Your task to perform on an android device: set default search engine in the chrome app Image 0: 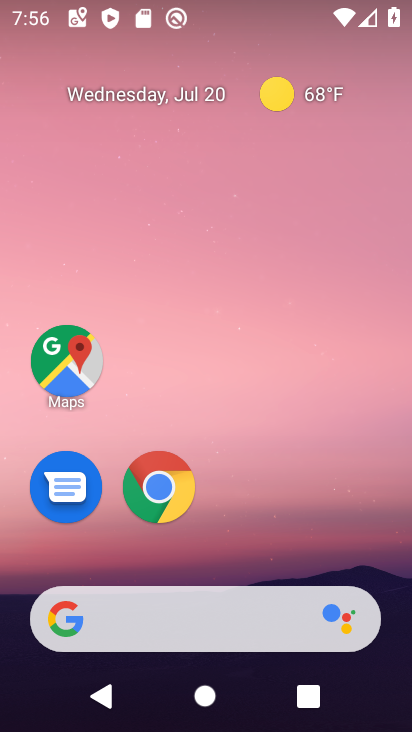
Step 0: drag from (374, 547) to (369, 83)
Your task to perform on an android device: set default search engine in the chrome app Image 1: 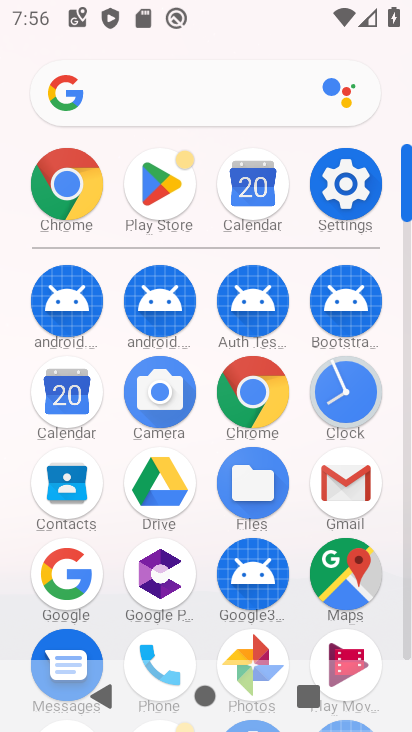
Step 1: click (260, 397)
Your task to perform on an android device: set default search engine in the chrome app Image 2: 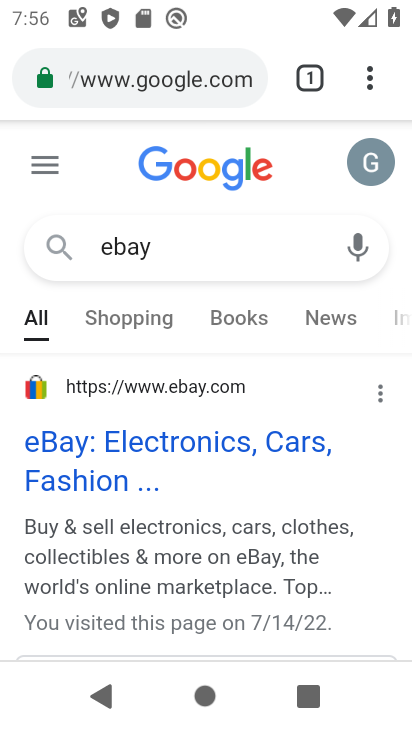
Step 2: click (370, 84)
Your task to perform on an android device: set default search engine in the chrome app Image 3: 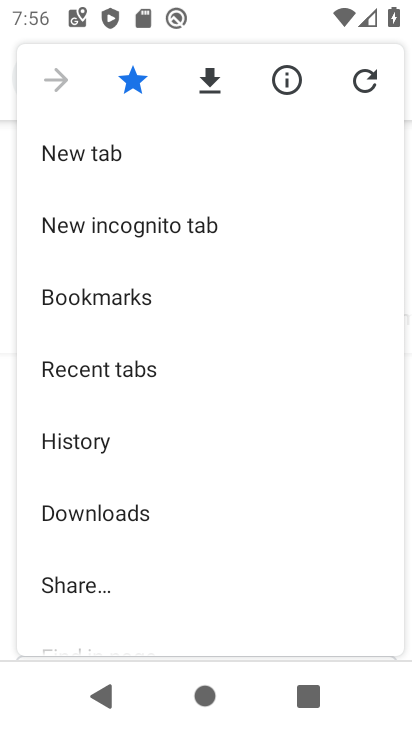
Step 3: drag from (304, 391) to (322, 319)
Your task to perform on an android device: set default search engine in the chrome app Image 4: 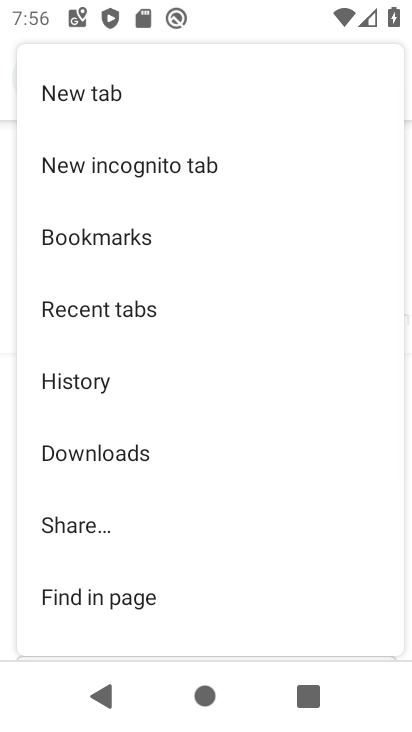
Step 4: drag from (316, 396) to (313, 328)
Your task to perform on an android device: set default search engine in the chrome app Image 5: 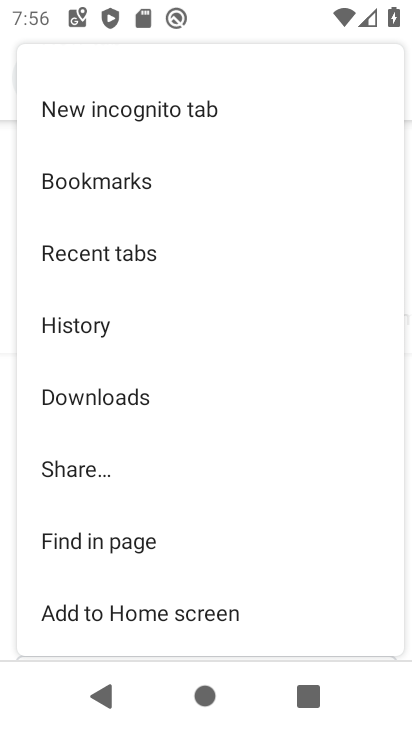
Step 5: drag from (330, 409) to (310, 332)
Your task to perform on an android device: set default search engine in the chrome app Image 6: 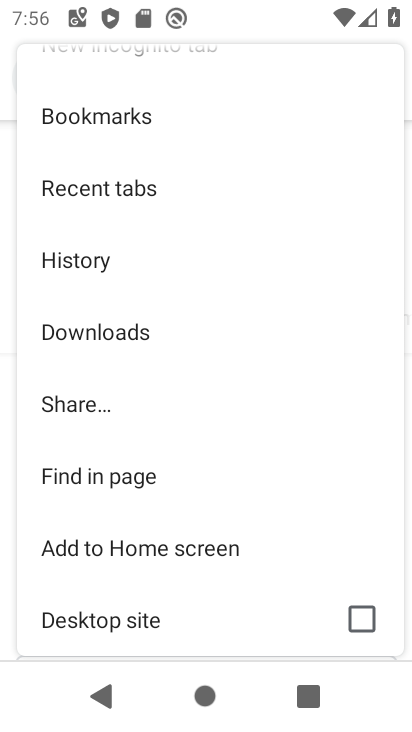
Step 6: drag from (306, 433) to (291, 299)
Your task to perform on an android device: set default search engine in the chrome app Image 7: 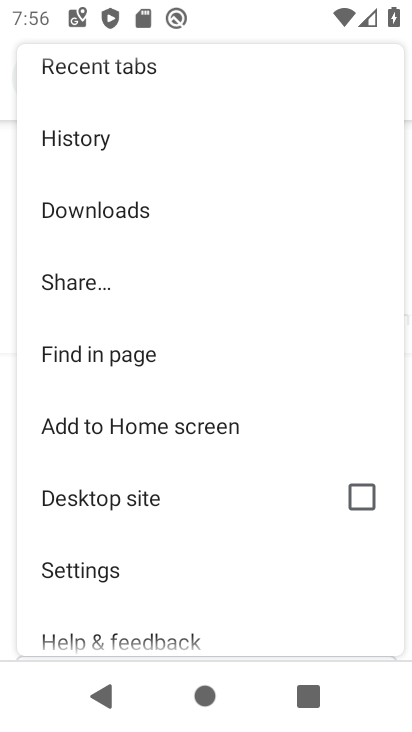
Step 7: drag from (263, 465) to (278, 345)
Your task to perform on an android device: set default search engine in the chrome app Image 8: 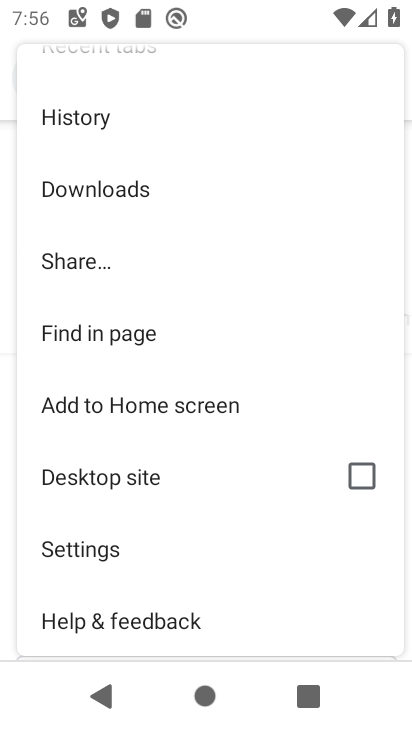
Step 8: click (215, 545)
Your task to perform on an android device: set default search engine in the chrome app Image 9: 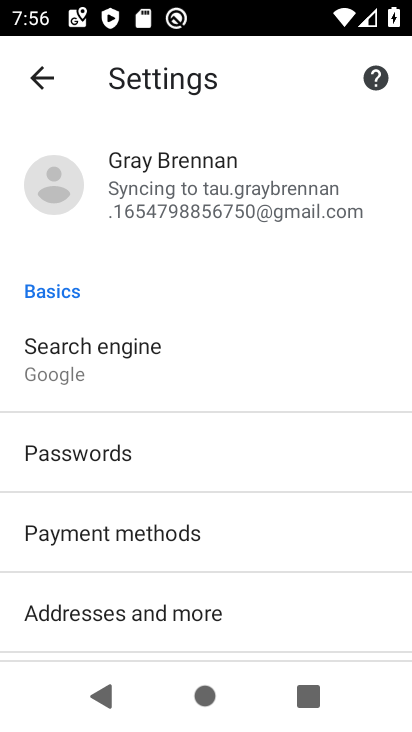
Step 9: drag from (320, 546) to (340, 451)
Your task to perform on an android device: set default search engine in the chrome app Image 10: 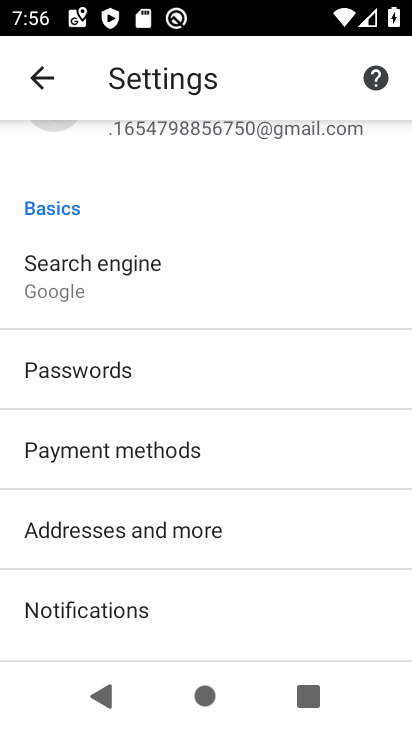
Step 10: drag from (344, 550) to (354, 462)
Your task to perform on an android device: set default search engine in the chrome app Image 11: 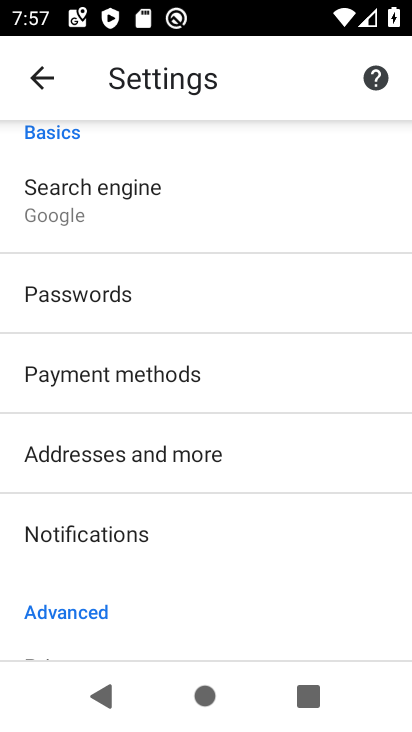
Step 11: drag from (362, 581) to (345, 463)
Your task to perform on an android device: set default search engine in the chrome app Image 12: 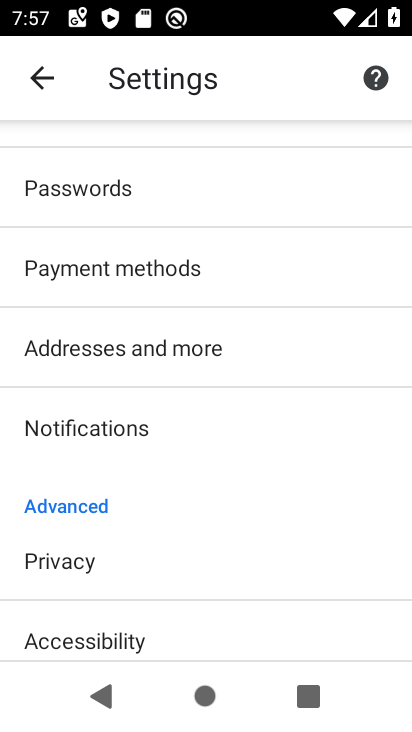
Step 12: drag from (315, 583) to (320, 450)
Your task to perform on an android device: set default search engine in the chrome app Image 13: 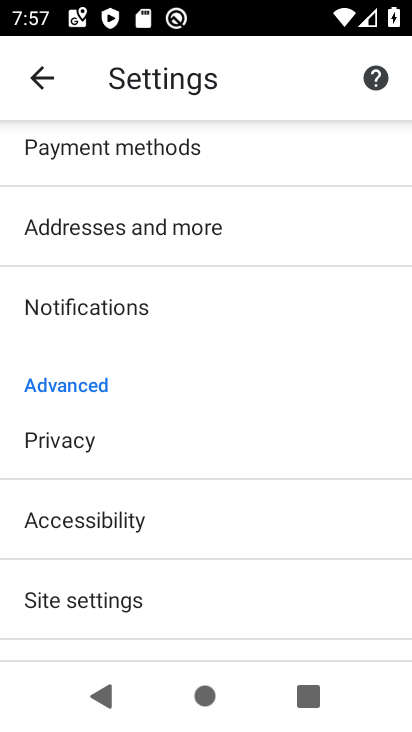
Step 13: drag from (335, 562) to (340, 373)
Your task to perform on an android device: set default search engine in the chrome app Image 14: 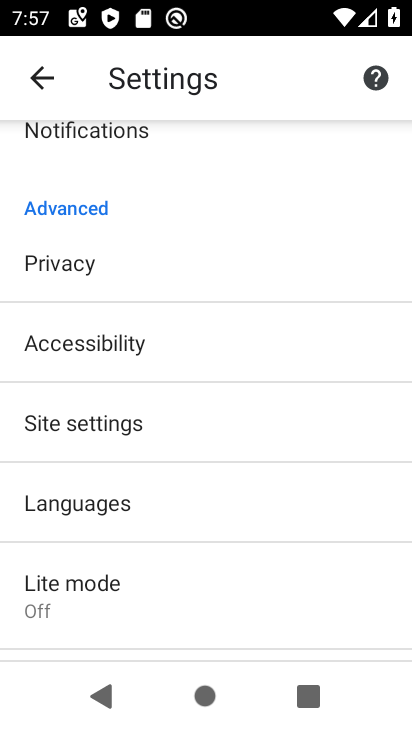
Step 14: drag from (361, 242) to (360, 328)
Your task to perform on an android device: set default search engine in the chrome app Image 15: 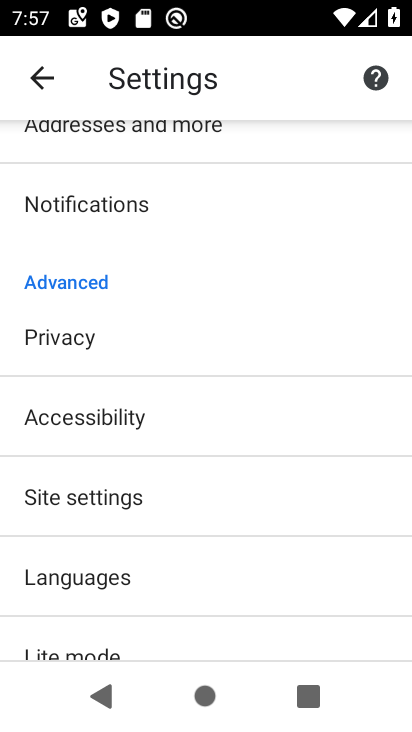
Step 15: drag from (371, 246) to (386, 371)
Your task to perform on an android device: set default search engine in the chrome app Image 16: 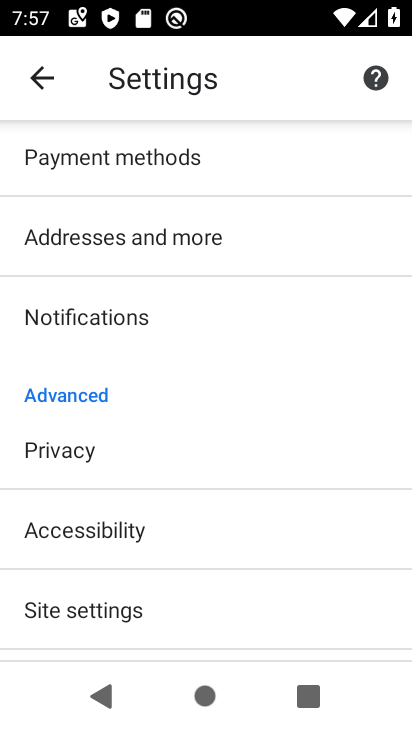
Step 16: drag from (352, 232) to (354, 367)
Your task to perform on an android device: set default search engine in the chrome app Image 17: 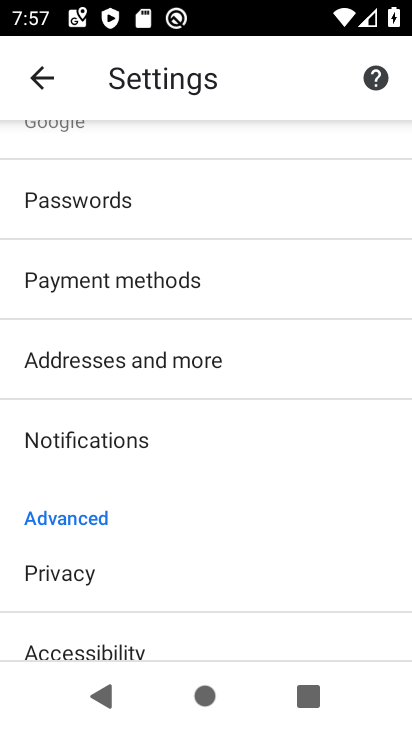
Step 17: drag from (330, 199) to (345, 420)
Your task to perform on an android device: set default search engine in the chrome app Image 18: 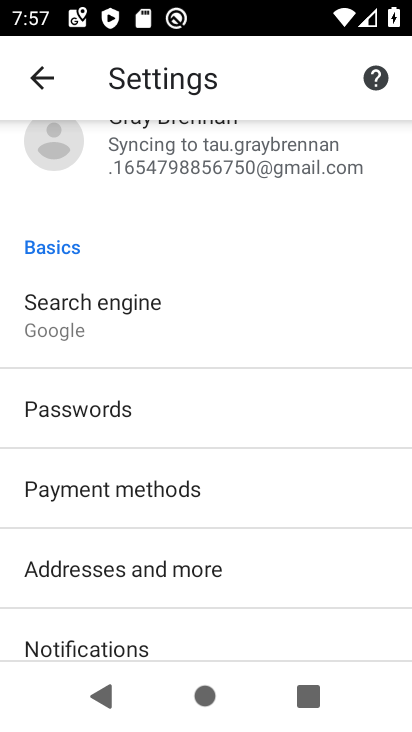
Step 18: click (140, 335)
Your task to perform on an android device: set default search engine in the chrome app Image 19: 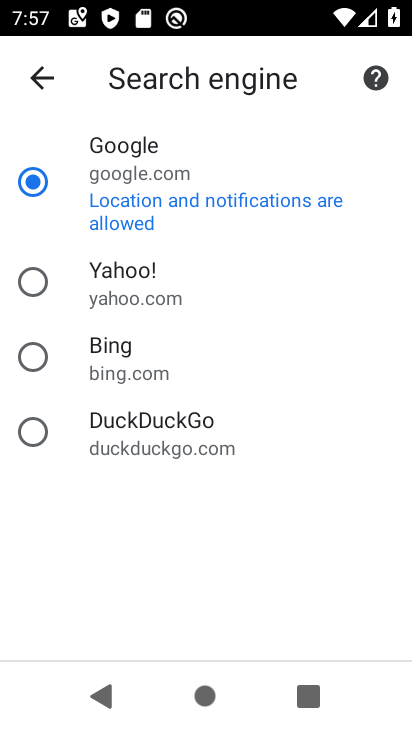
Step 19: click (125, 362)
Your task to perform on an android device: set default search engine in the chrome app Image 20: 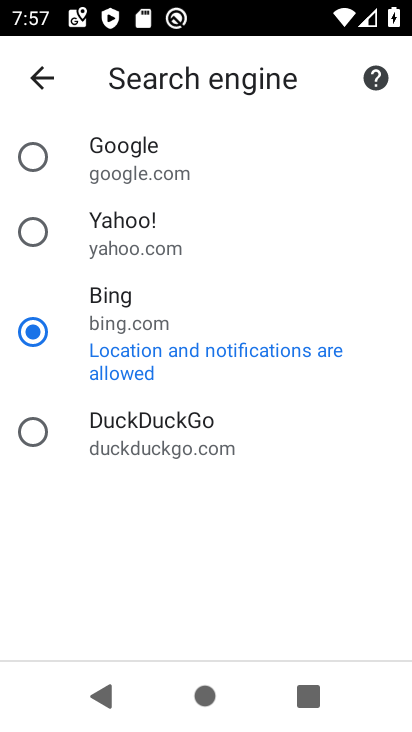
Step 20: task complete